Your task to perform on an android device: set the timer Image 0: 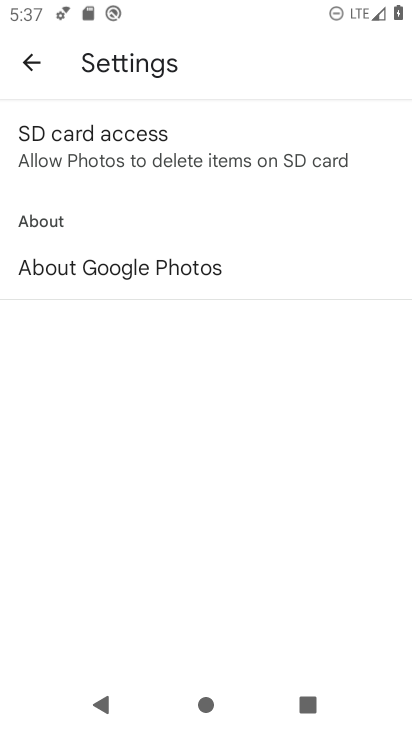
Step 0: press back button
Your task to perform on an android device: set the timer Image 1: 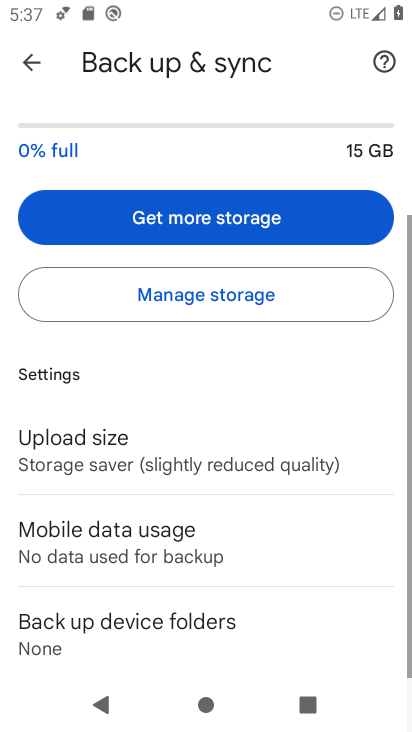
Step 1: press home button
Your task to perform on an android device: set the timer Image 2: 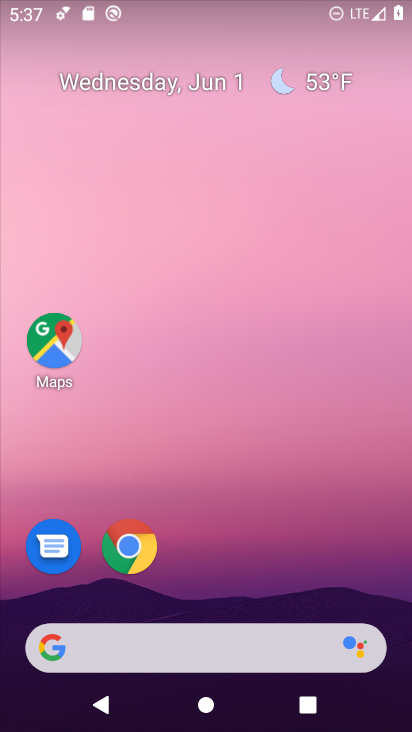
Step 2: drag from (280, 514) to (234, 39)
Your task to perform on an android device: set the timer Image 3: 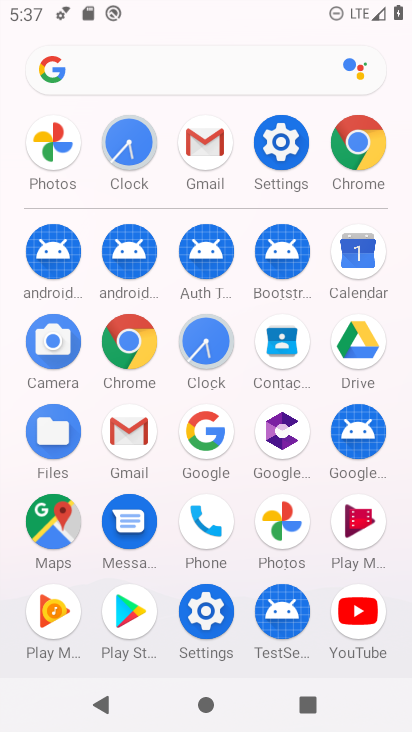
Step 3: click (208, 342)
Your task to perform on an android device: set the timer Image 4: 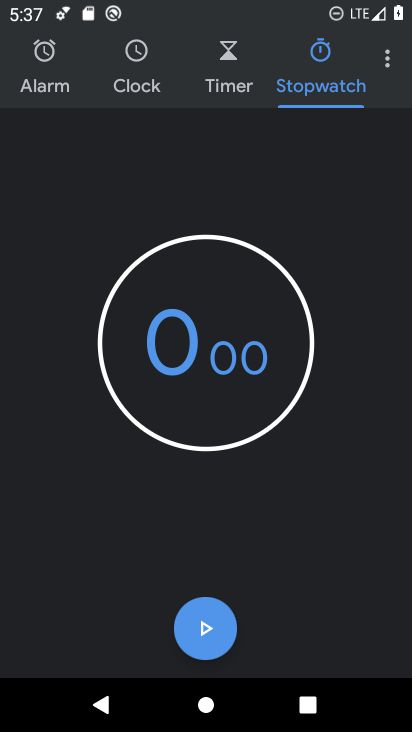
Step 4: click (232, 56)
Your task to perform on an android device: set the timer Image 5: 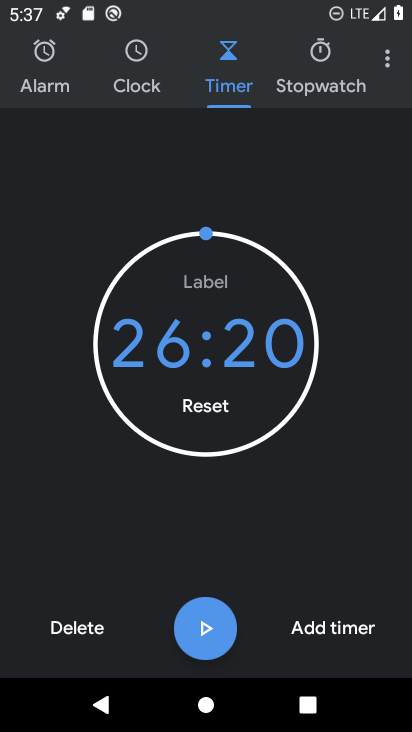
Step 5: click (325, 620)
Your task to perform on an android device: set the timer Image 6: 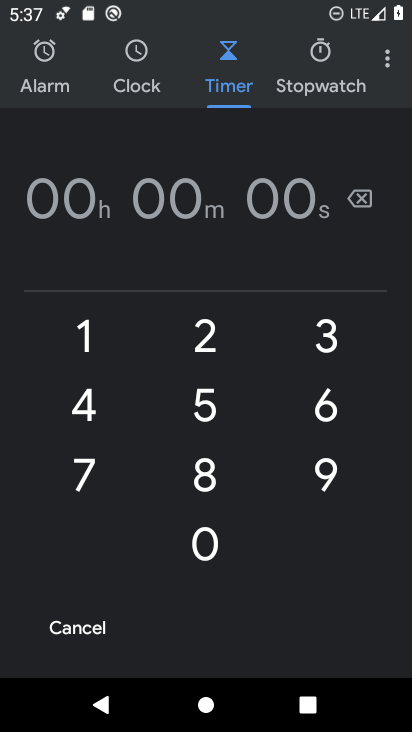
Step 6: click (203, 344)
Your task to perform on an android device: set the timer Image 7: 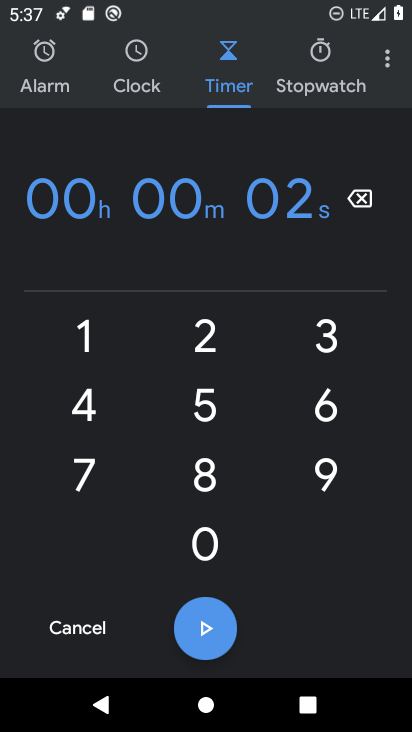
Step 7: click (105, 412)
Your task to perform on an android device: set the timer Image 8: 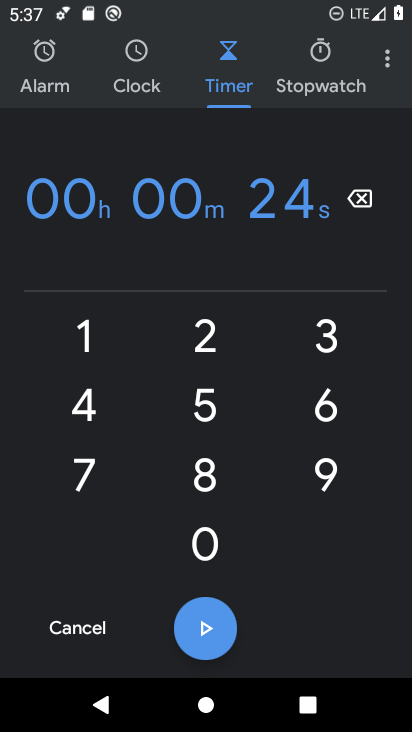
Step 8: click (186, 394)
Your task to perform on an android device: set the timer Image 9: 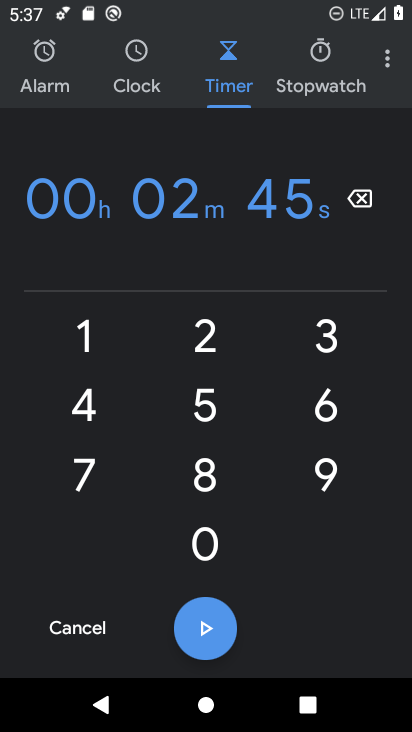
Step 9: click (210, 478)
Your task to perform on an android device: set the timer Image 10: 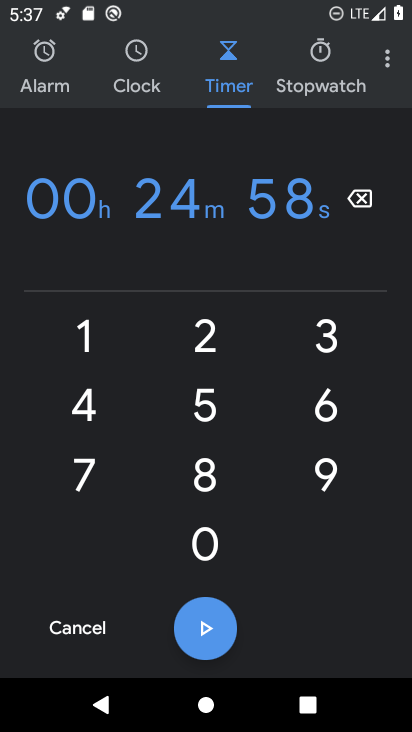
Step 10: click (213, 625)
Your task to perform on an android device: set the timer Image 11: 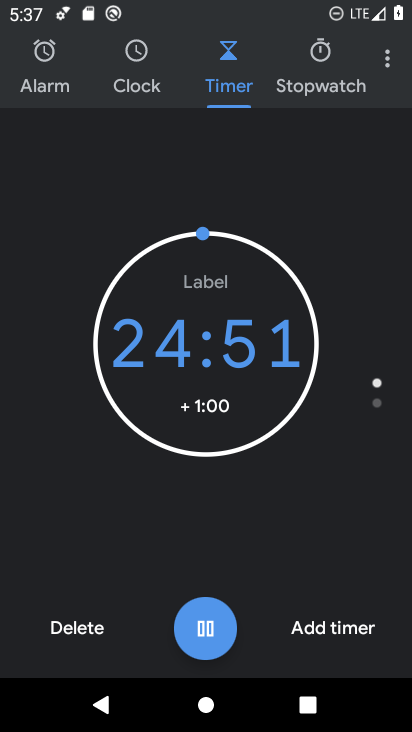
Step 11: task complete